Your task to perform on an android device: delete the emails in spam in the gmail app Image 0: 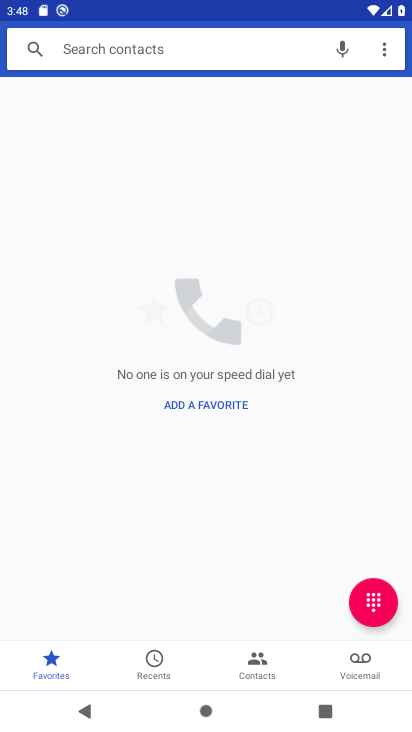
Step 0: press home button
Your task to perform on an android device: delete the emails in spam in the gmail app Image 1: 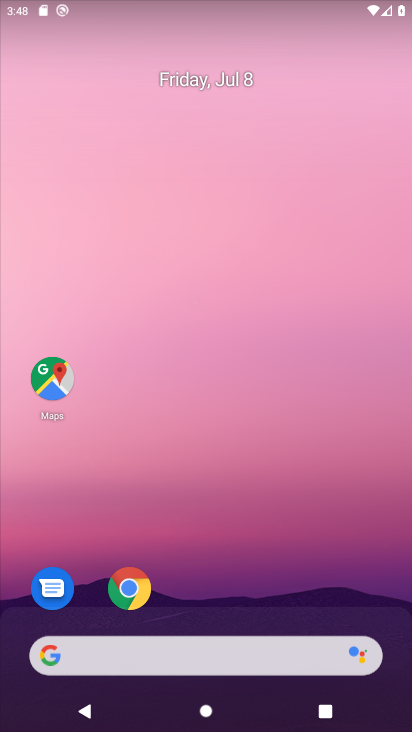
Step 1: drag from (201, 635) to (241, 1)
Your task to perform on an android device: delete the emails in spam in the gmail app Image 2: 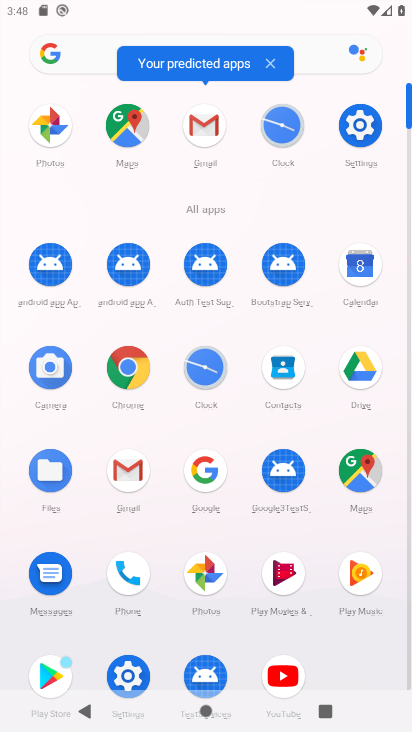
Step 2: click (122, 483)
Your task to perform on an android device: delete the emails in spam in the gmail app Image 3: 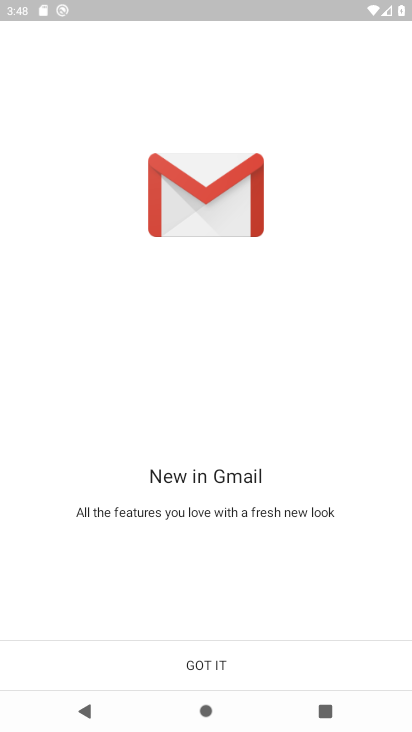
Step 3: click (236, 664)
Your task to perform on an android device: delete the emails in spam in the gmail app Image 4: 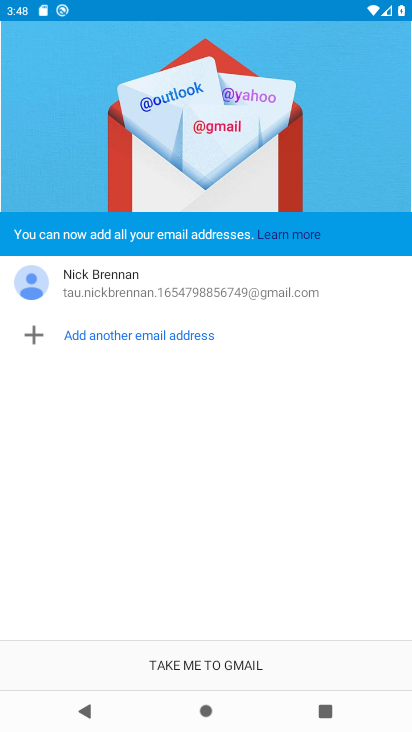
Step 4: click (236, 664)
Your task to perform on an android device: delete the emails in spam in the gmail app Image 5: 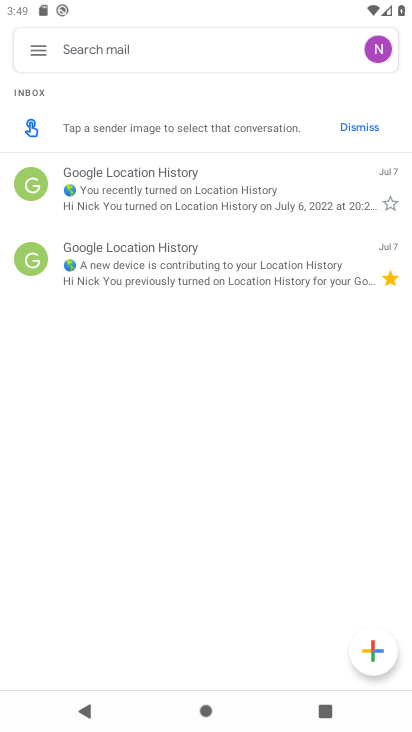
Step 5: click (39, 49)
Your task to perform on an android device: delete the emails in spam in the gmail app Image 6: 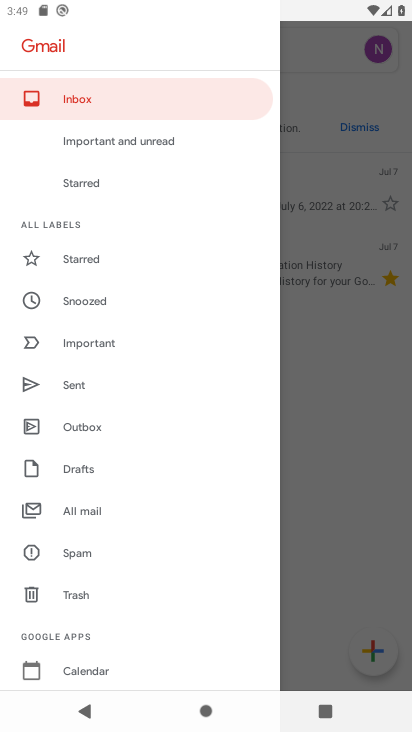
Step 6: click (78, 555)
Your task to perform on an android device: delete the emails in spam in the gmail app Image 7: 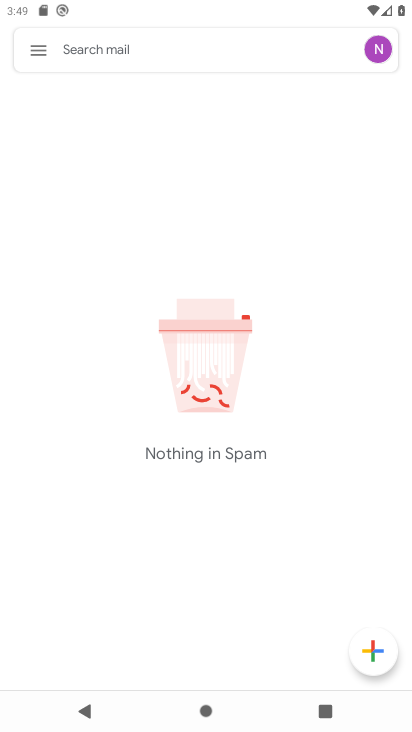
Step 7: task complete